Your task to perform on an android device: Check the news Image 0: 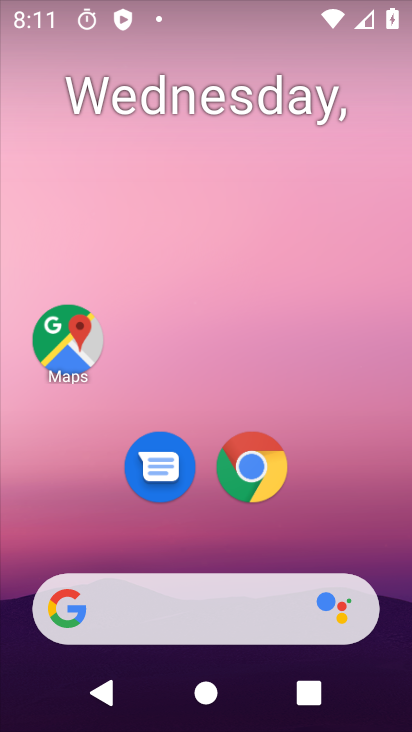
Step 0: drag from (349, 251) to (393, 236)
Your task to perform on an android device: Check the news Image 1: 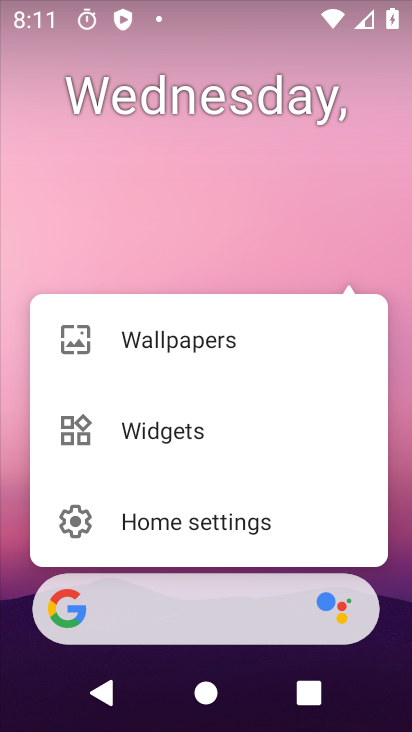
Step 1: drag from (17, 220) to (348, 177)
Your task to perform on an android device: Check the news Image 2: 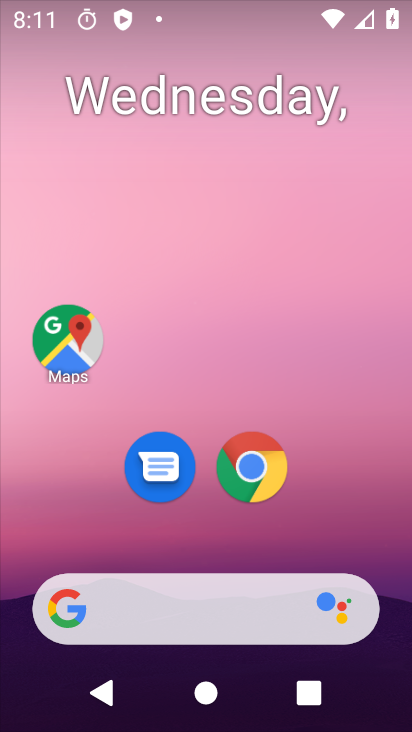
Step 2: drag from (2, 225) to (366, 221)
Your task to perform on an android device: Check the news Image 3: 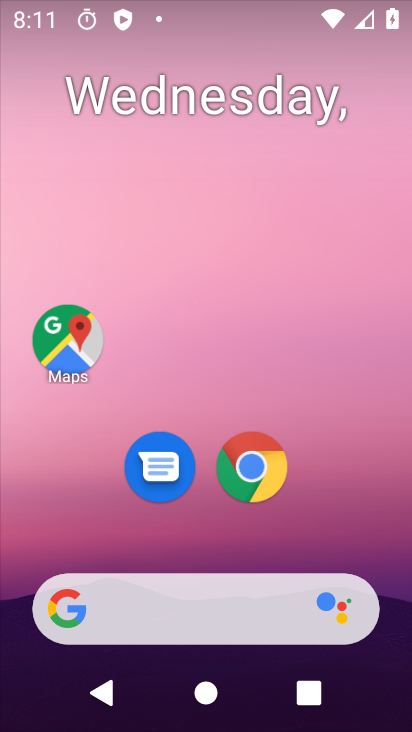
Step 3: drag from (8, 250) to (312, 267)
Your task to perform on an android device: Check the news Image 4: 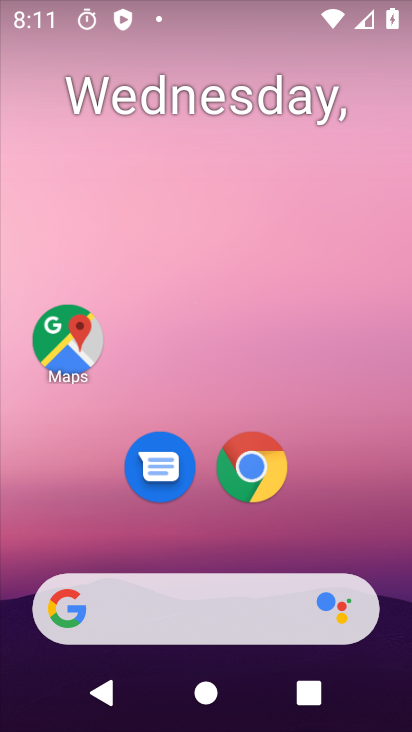
Step 4: drag from (30, 252) to (393, 218)
Your task to perform on an android device: Check the news Image 5: 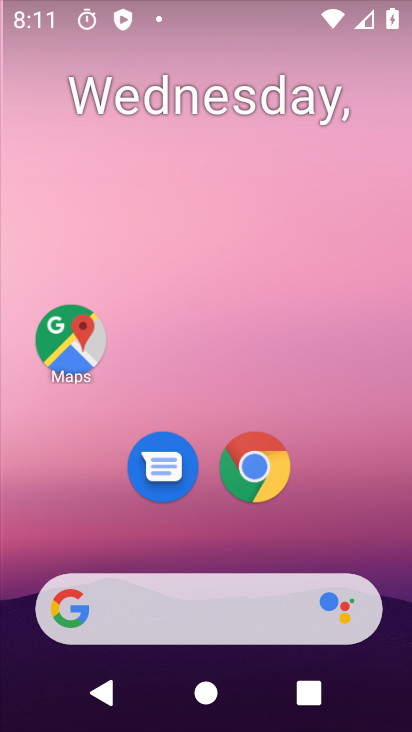
Step 5: click (285, 225)
Your task to perform on an android device: Check the news Image 6: 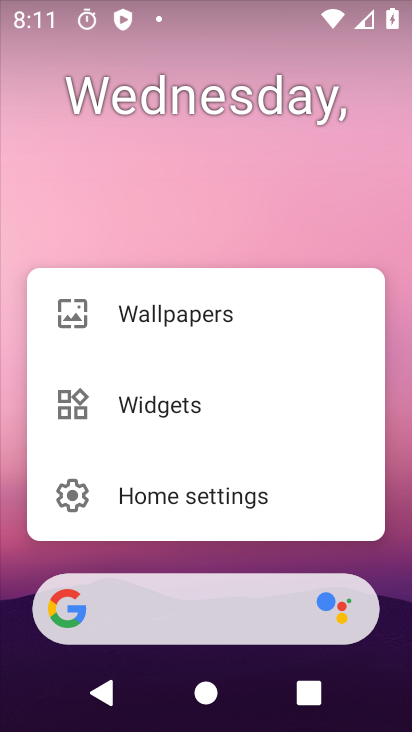
Step 6: click (113, 153)
Your task to perform on an android device: Check the news Image 7: 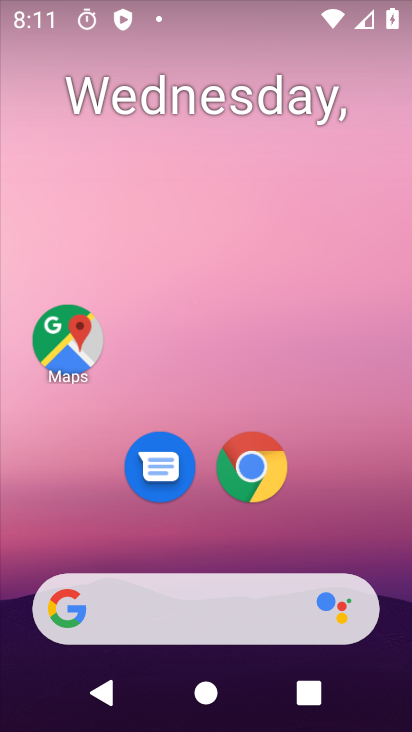
Step 7: task complete